Your task to perform on an android device: Go to internet settings Image 0: 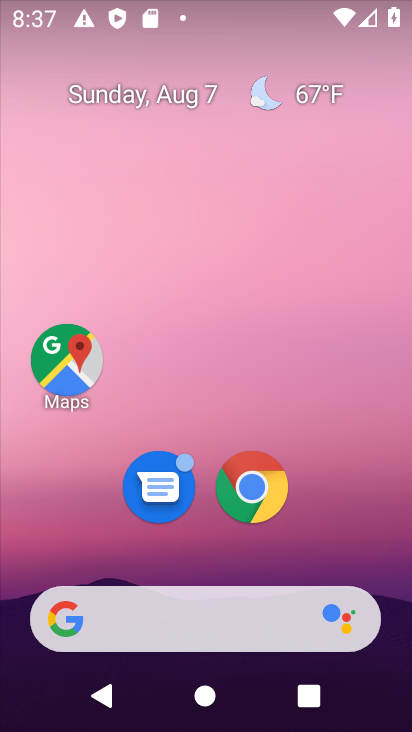
Step 0: drag from (368, 605) to (339, 109)
Your task to perform on an android device: Go to internet settings Image 1: 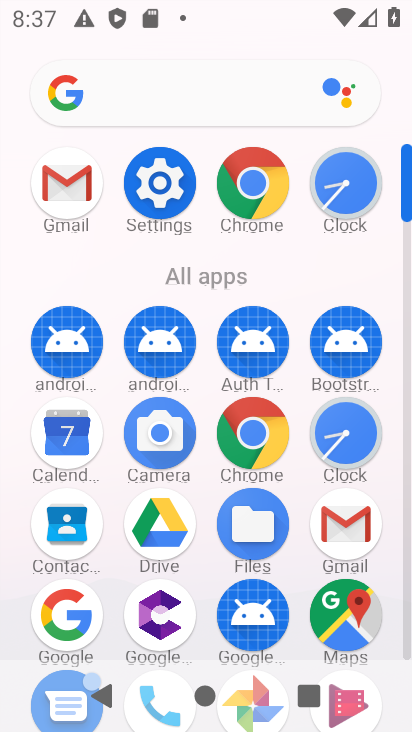
Step 1: click (164, 191)
Your task to perform on an android device: Go to internet settings Image 2: 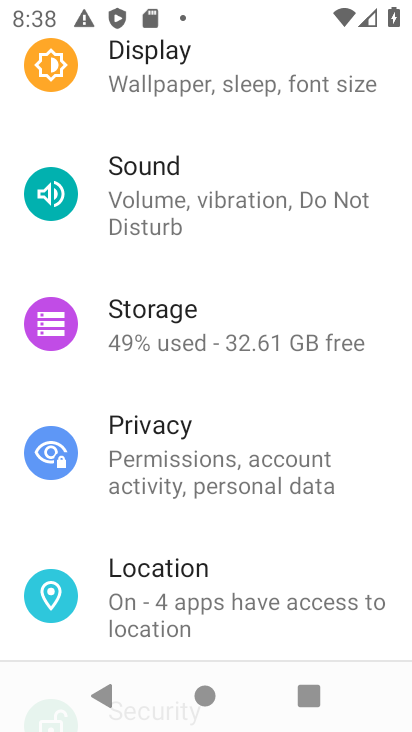
Step 2: drag from (159, 146) to (160, 472)
Your task to perform on an android device: Go to internet settings Image 3: 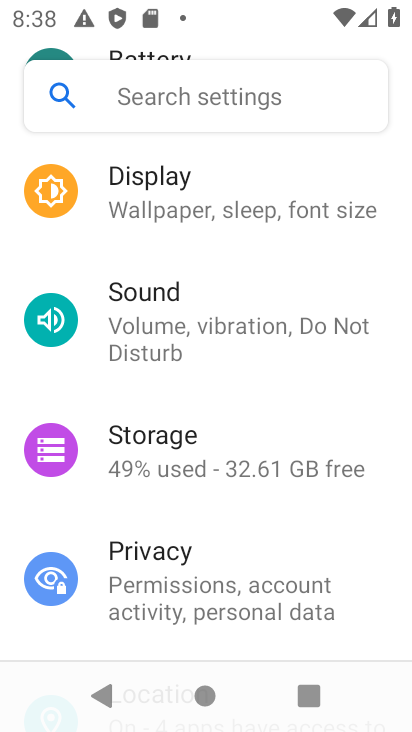
Step 3: drag from (190, 171) to (188, 546)
Your task to perform on an android device: Go to internet settings Image 4: 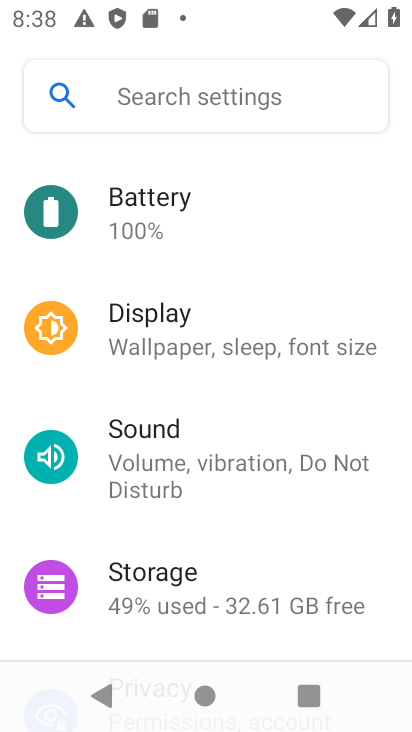
Step 4: drag from (204, 183) to (223, 575)
Your task to perform on an android device: Go to internet settings Image 5: 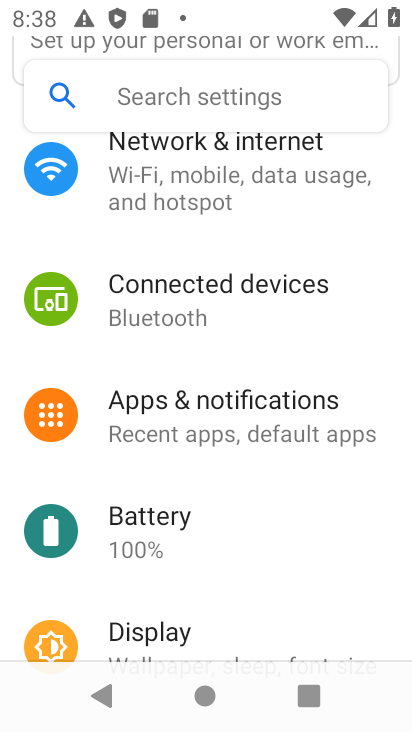
Step 5: click (178, 153)
Your task to perform on an android device: Go to internet settings Image 6: 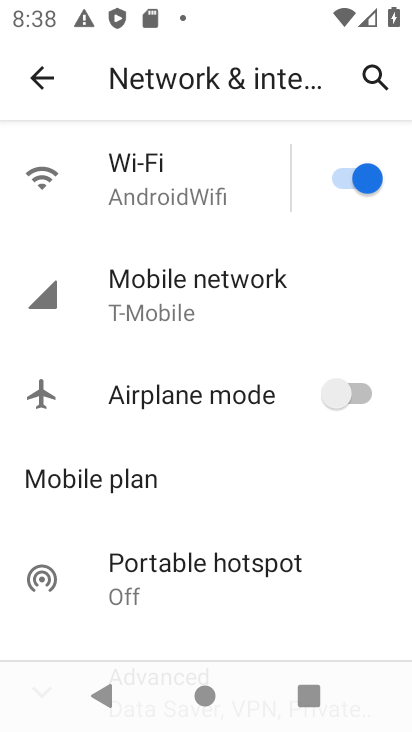
Step 6: drag from (205, 613) to (218, 264)
Your task to perform on an android device: Go to internet settings Image 7: 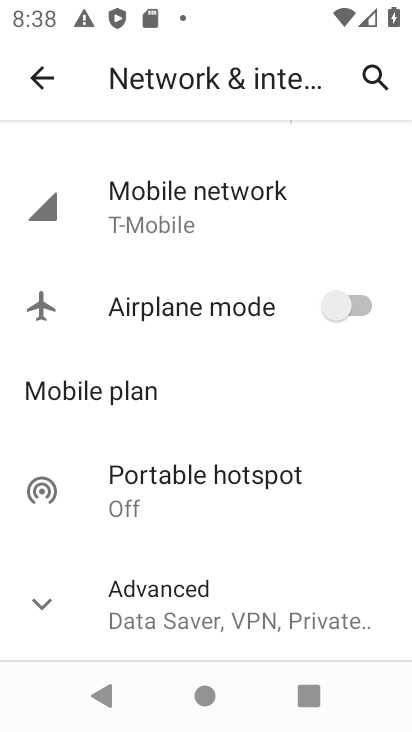
Step 7: click (148, 194)
Your task to perform on an android device: Go to internet settings Image 8: 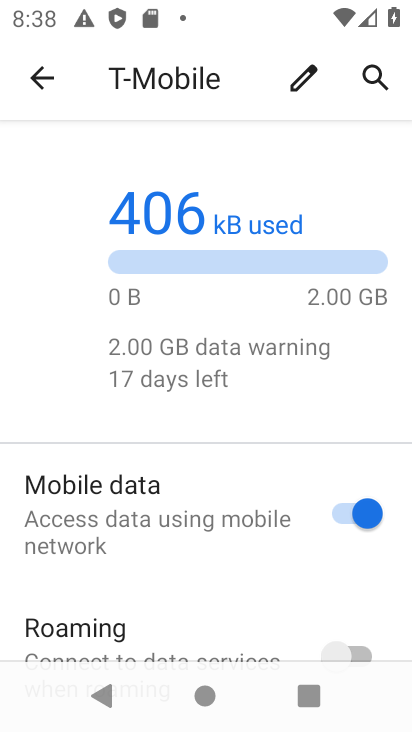
Step 8: drag from (172, 608) to (224, 144)
Your task to perform on an android device: Go to internet settings Image 9: 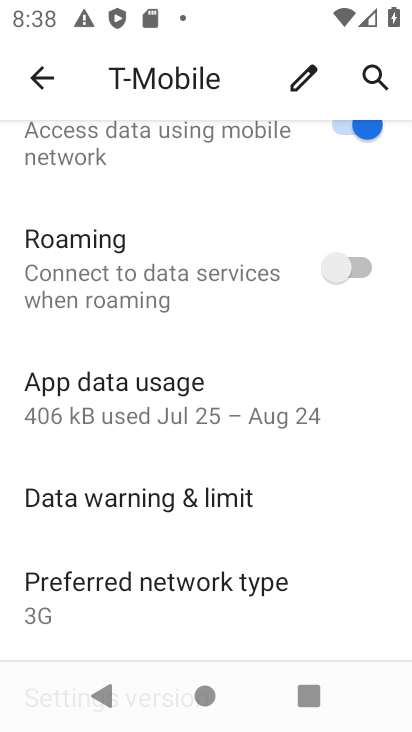
Step 9: drag from (130, 544) to (202, 190)
Your task to perform on an android device: Go to internet settings Image 10: 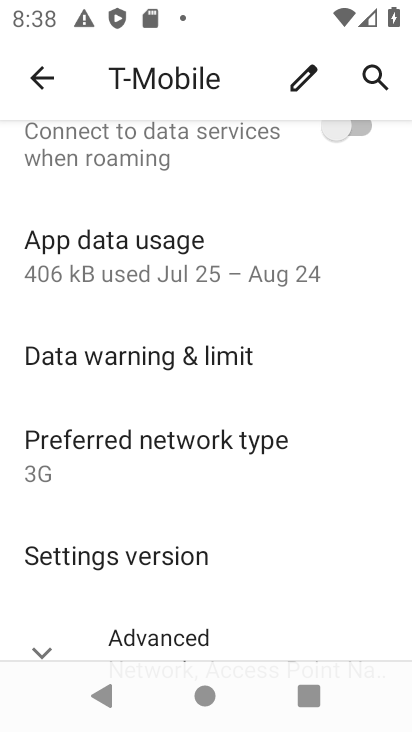
Step 10: click (50, 646)
Your task to perform on an android device: Go to internet settings Image 11: 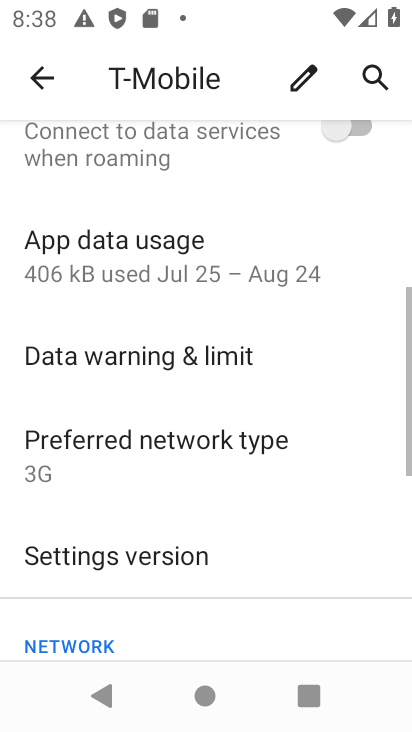
Step 11: drag from (299, 593) to (341, 188)
Your task to perform on an android device: Go to internet settings Image 12: 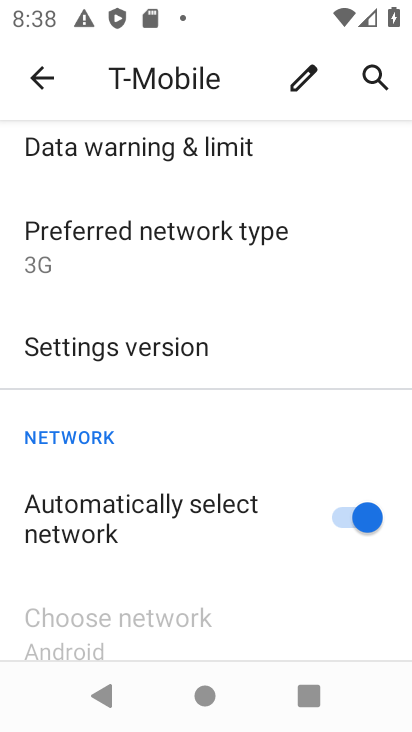
Step 12: click (266, 401)
Your task to perform on an android device: Go to internet settings Image 13: 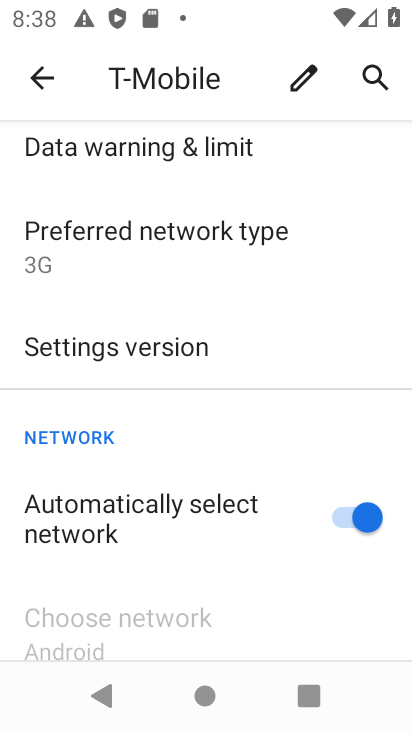
Step 13: task complete